Your task to perform on an android device: check android version Image 0: 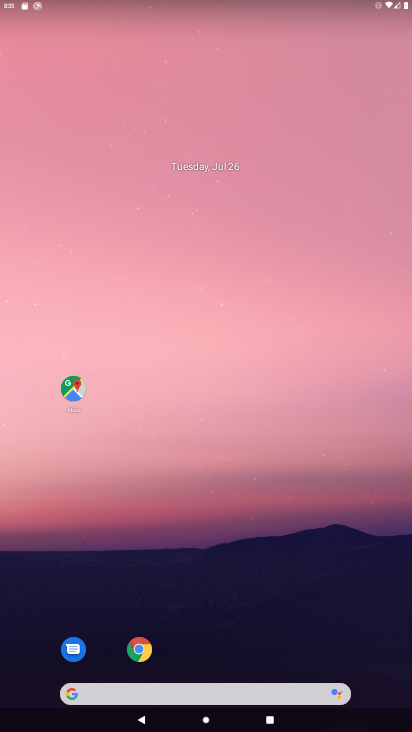
Step 0: drag from (194, 660) to (227, 174)
Your task to perform on an android device: check android version Image 1: 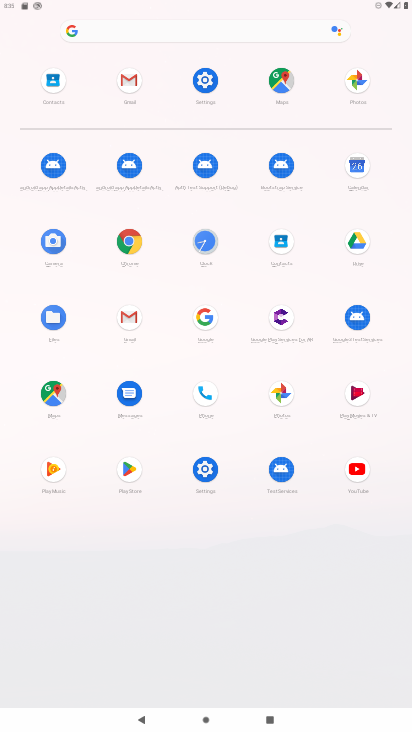
Step 1: click (199, 86)
Your task to perform on an android device: check android version Image 2: 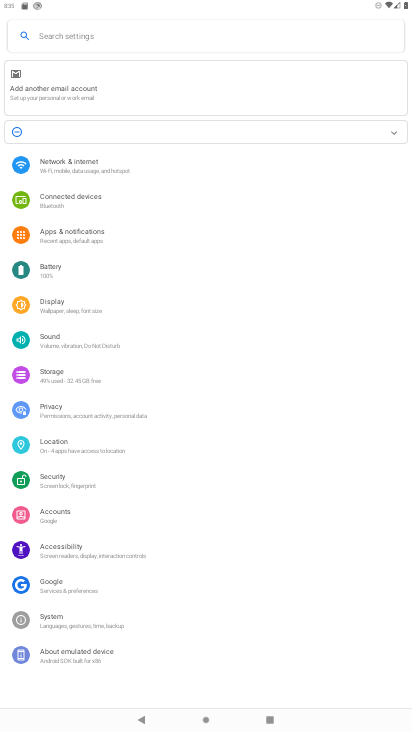
Step 2: click (50, 644)
Your task to perform on an android device: check android version Image 3: 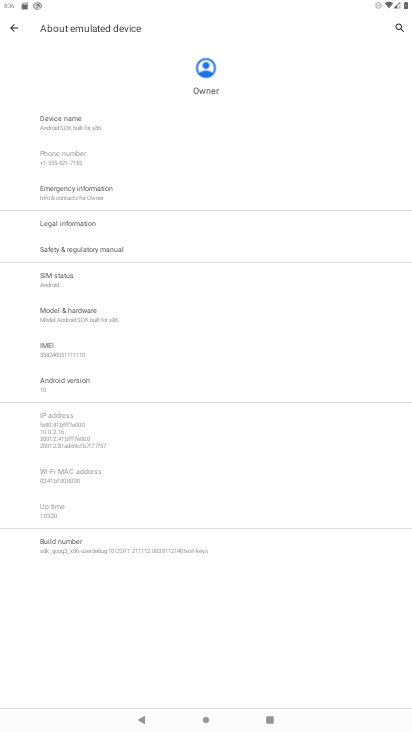
Step 3: click (65, 387)
Your task to perform on an android device: check android version Image 4: 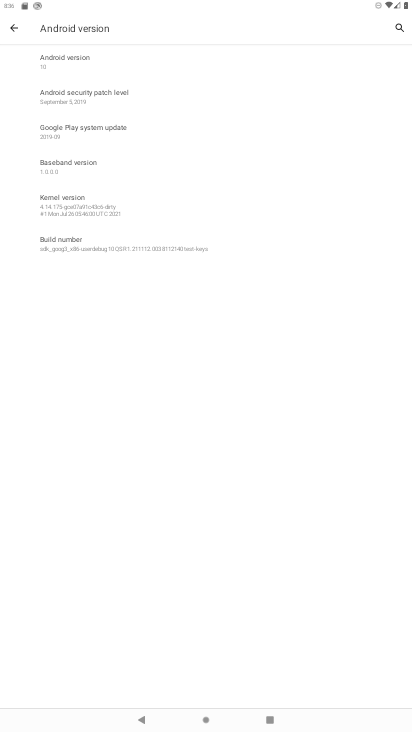
Step 4: task complete